Your task to perform on an android device: open app "Booking.com: Hotels and more" (install if not already installed) Image 0: 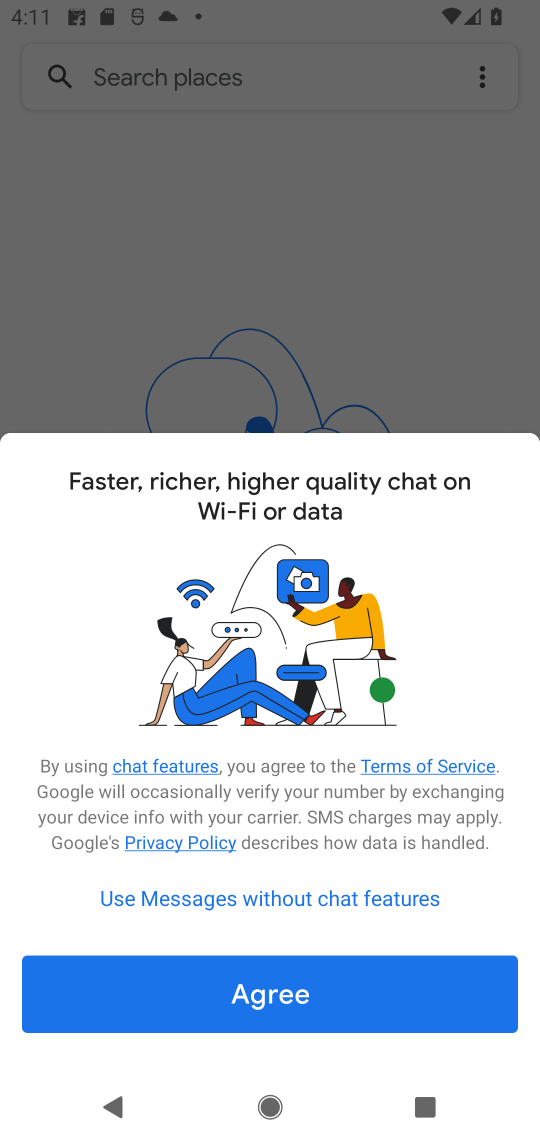
Step 0: press home button
Your task to perform on an android device: open app "Booking.com: Hotels and more" (install if not already installed) Image 1: 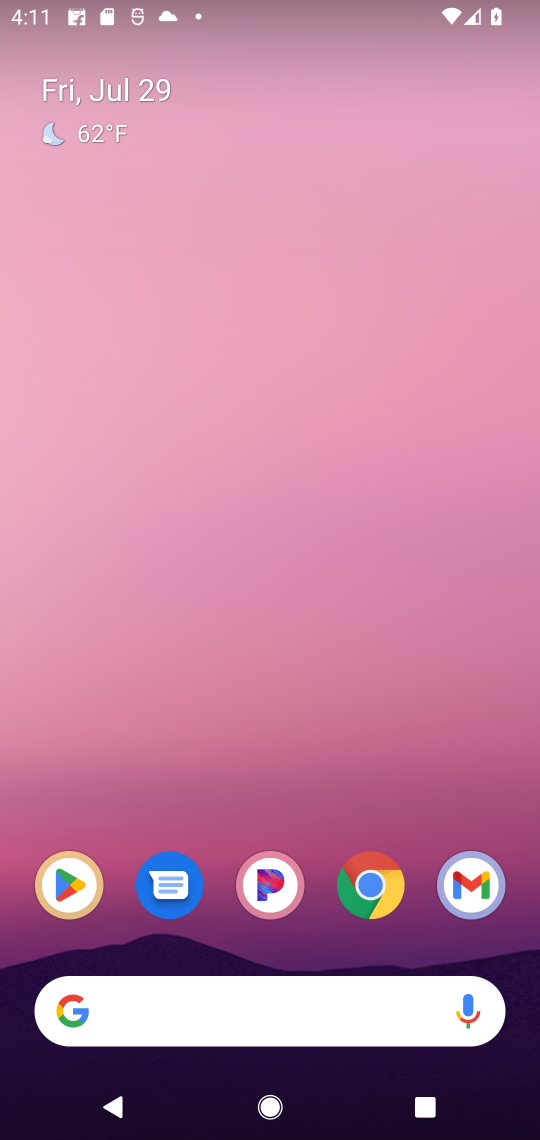
Step 1: click (77, 888)
Your task to perform on an android device: open app "Booking.com: Hotels and more" (install if not already installed) Image 2: 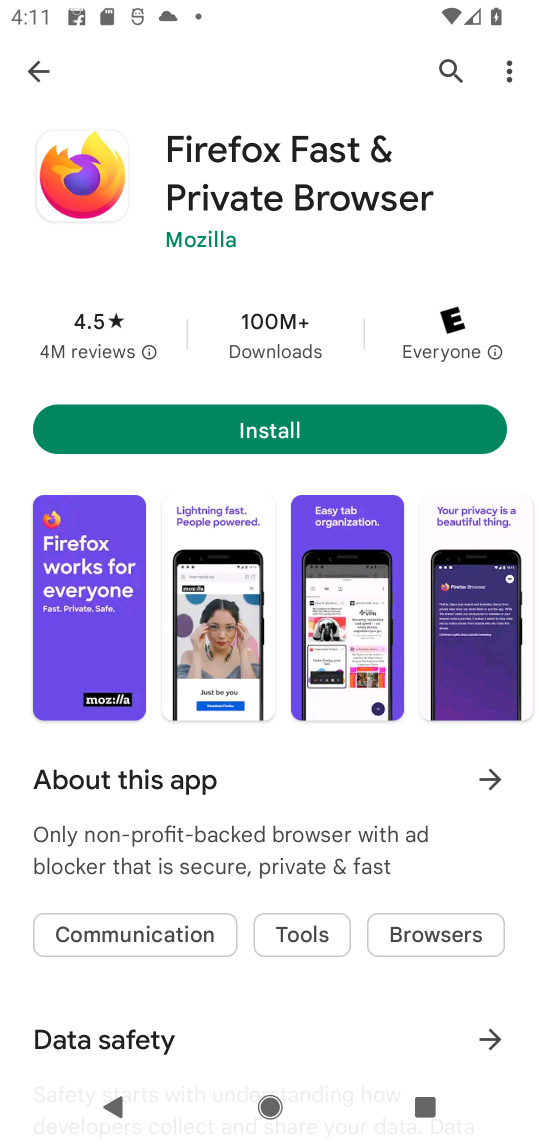
Step 2: click (453, 81)
Your task to perform on an android device: open app "Booking.com: Hotels and more" (install if not already installed) Image 3: 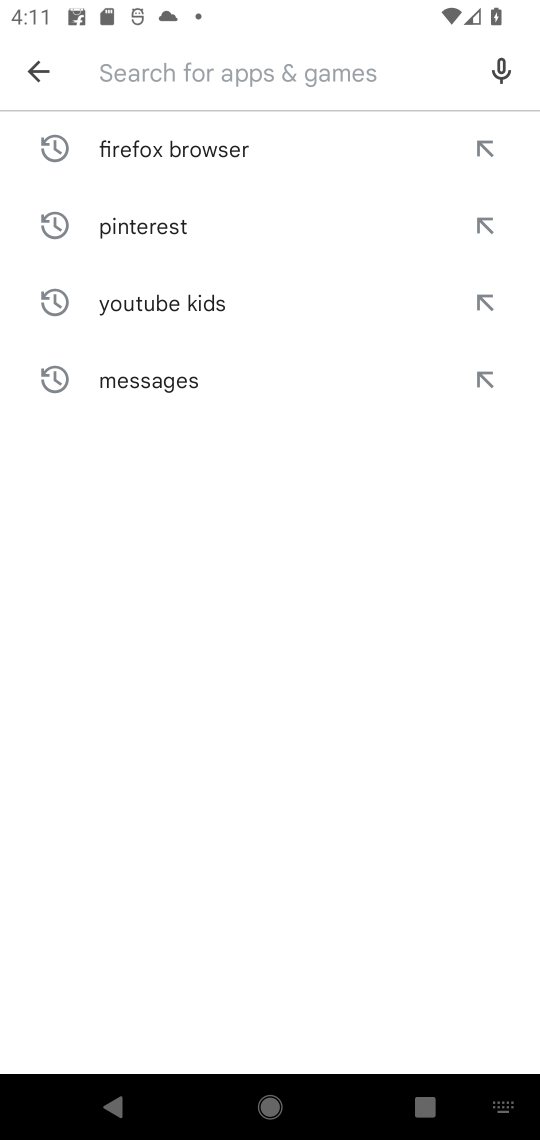
Step 3: type "Booking.com: Hotels and more"
Your task to perform on an android device: open app "Booking.com: Hotels and more" (install if not already installed) Image 4: 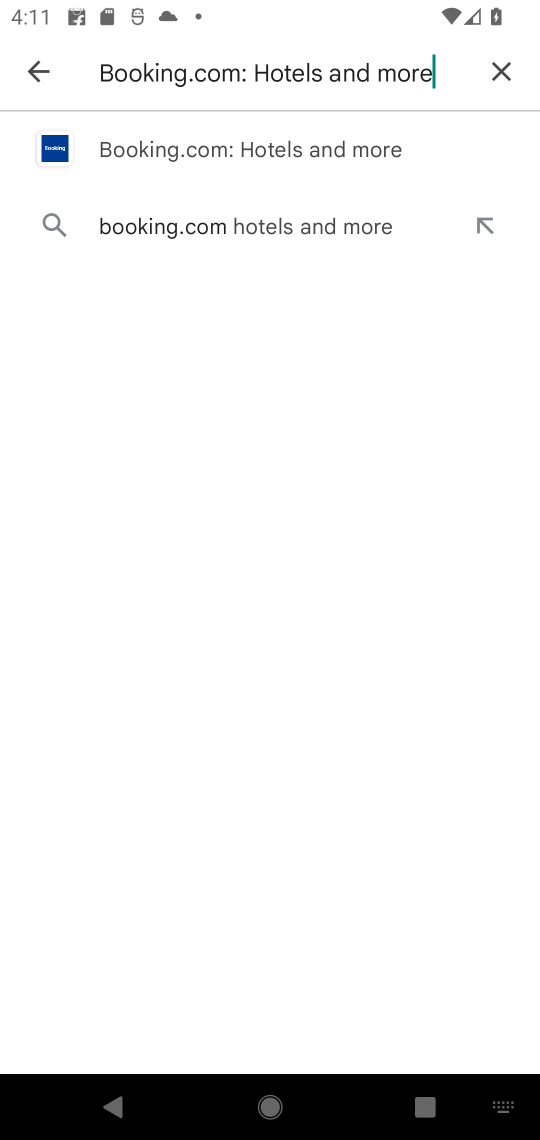
Step 4: click (315, 146)
Your task to perform on an android device: open app "Booking.com: Hotels and more" (install if not already installed) Image 5: 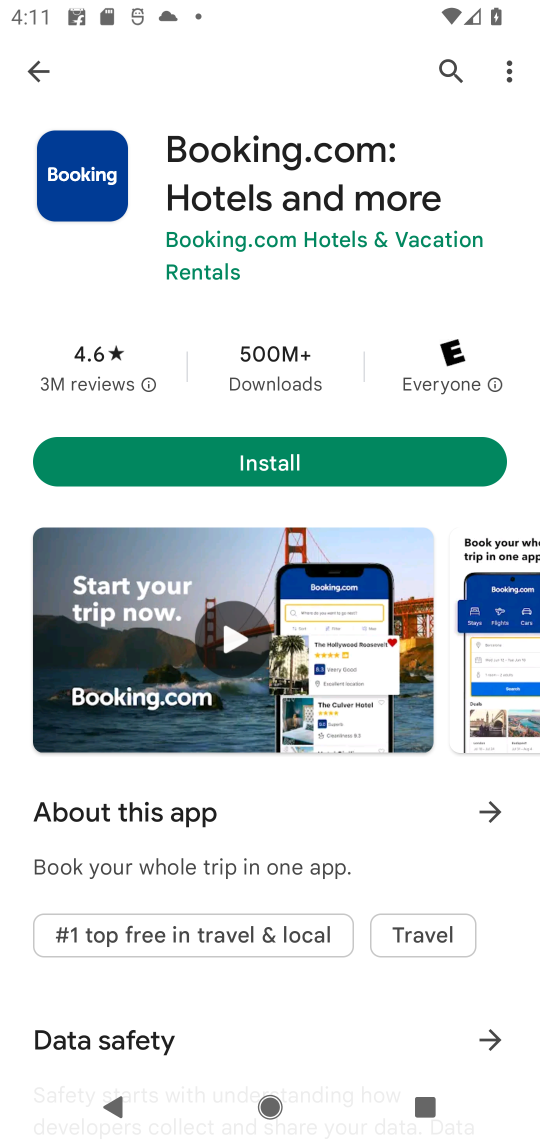
Step 5: click (187, 477)
Your task to perform on an android device: open app "Booking.com: Hotels and more" (install if not already installed) Image 6: 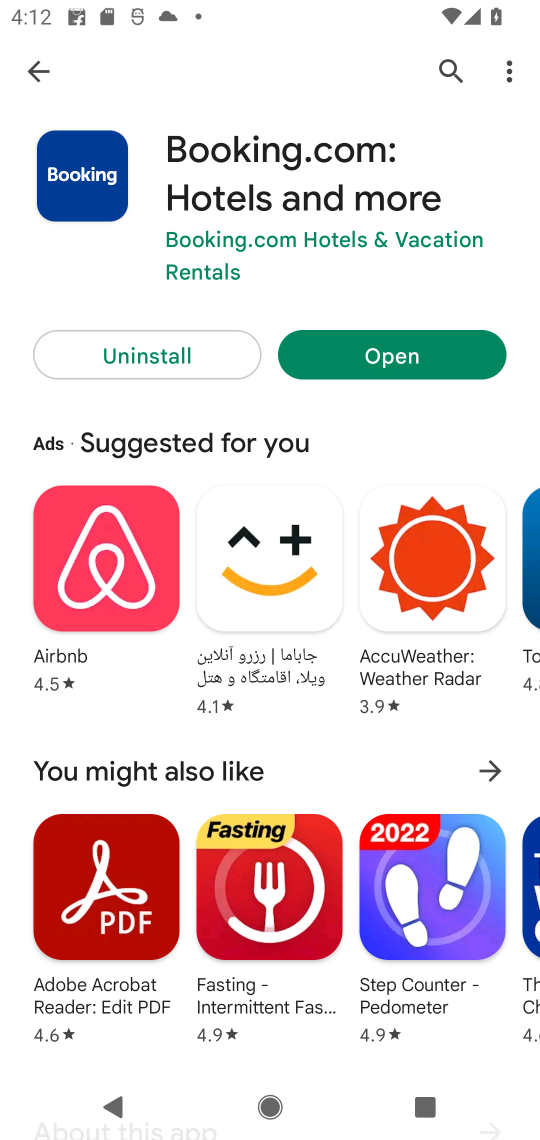
Step 6: click (410, 352)
Your task to perform on an android device: open app "Booking.com: Hotels and more" (install if not already installed) Image 7: 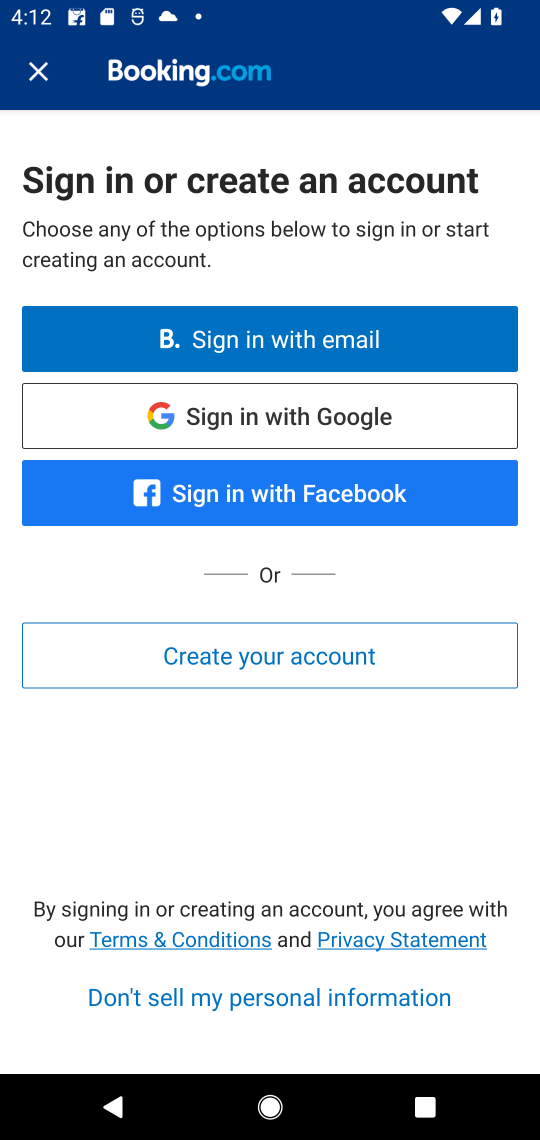
Step 7: task complete